Your task to perform on an android device: Add usb-c to usb-b to the cart on target Image 0: 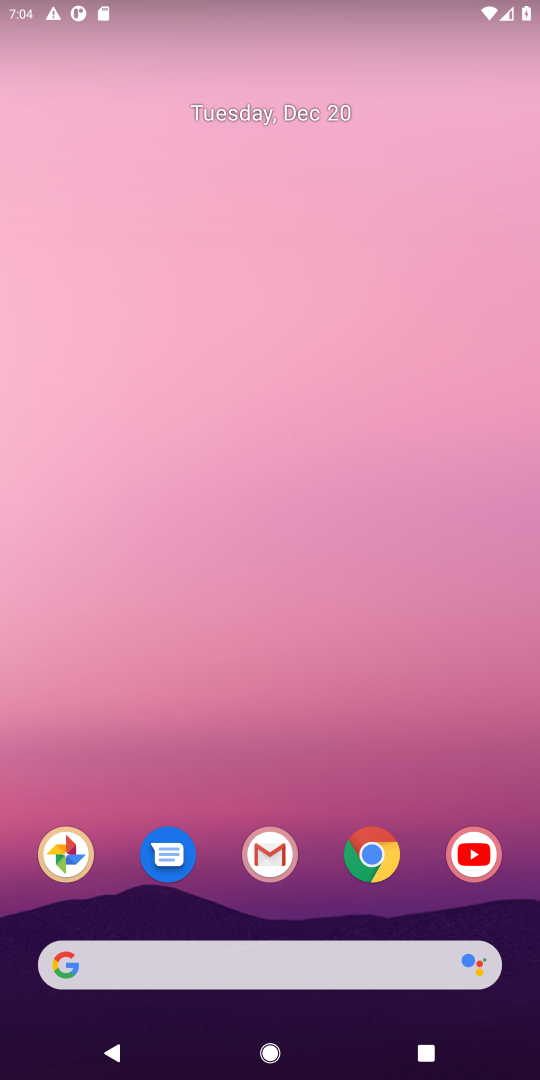
Step 0: click (374, 863)
Your task to perform on an android device: Add usb-c to usb-b to the cart on target Image 1: 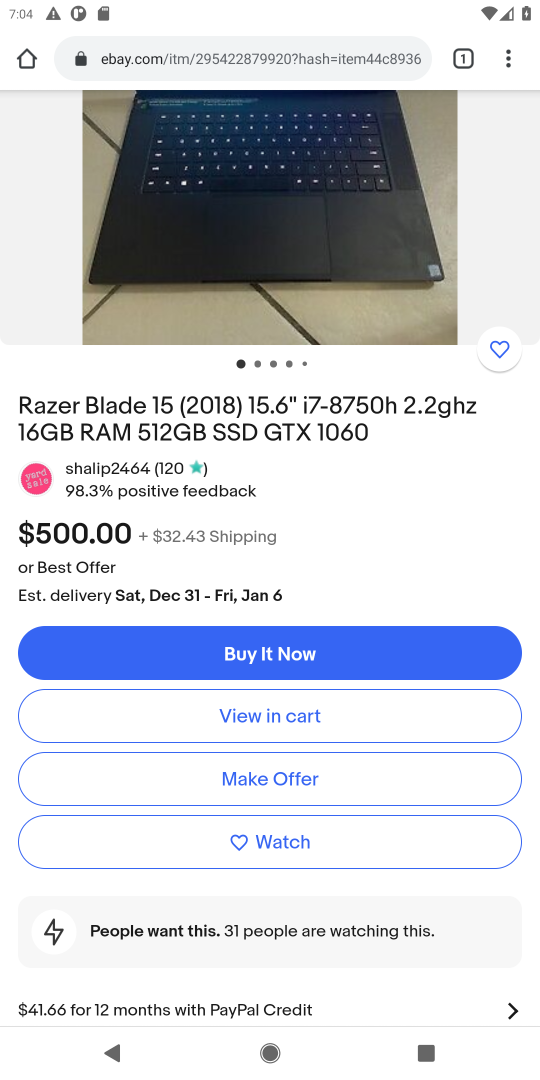
Step 1: click (193, 62)
Your task to perform on an android device: Add usb-c to usb-b to the cart on target Image 2: 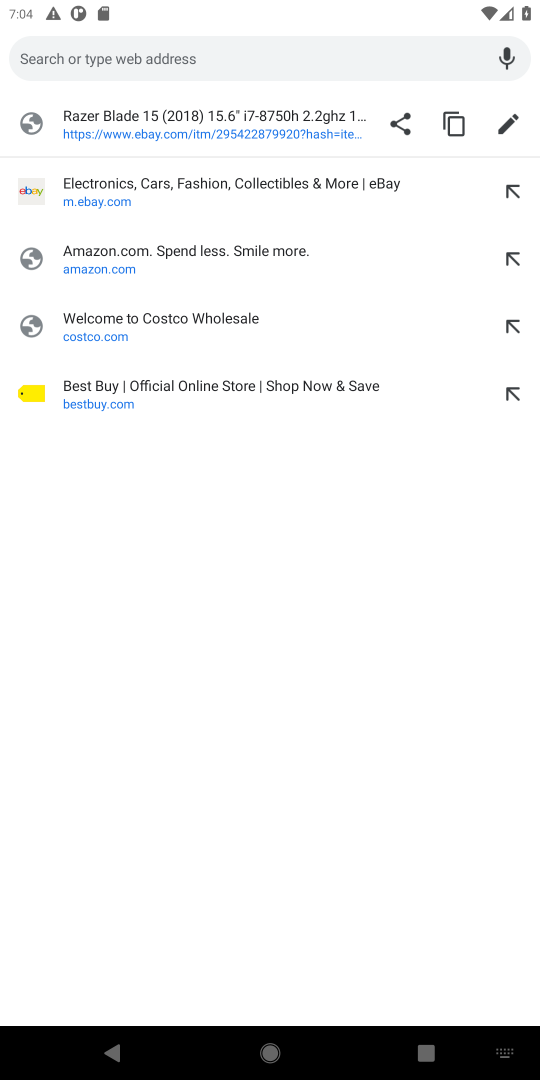
Step 2: type "target.com"
Your task to perform on an android device: Add usb-c to usb-b to the cart on target Image 3: 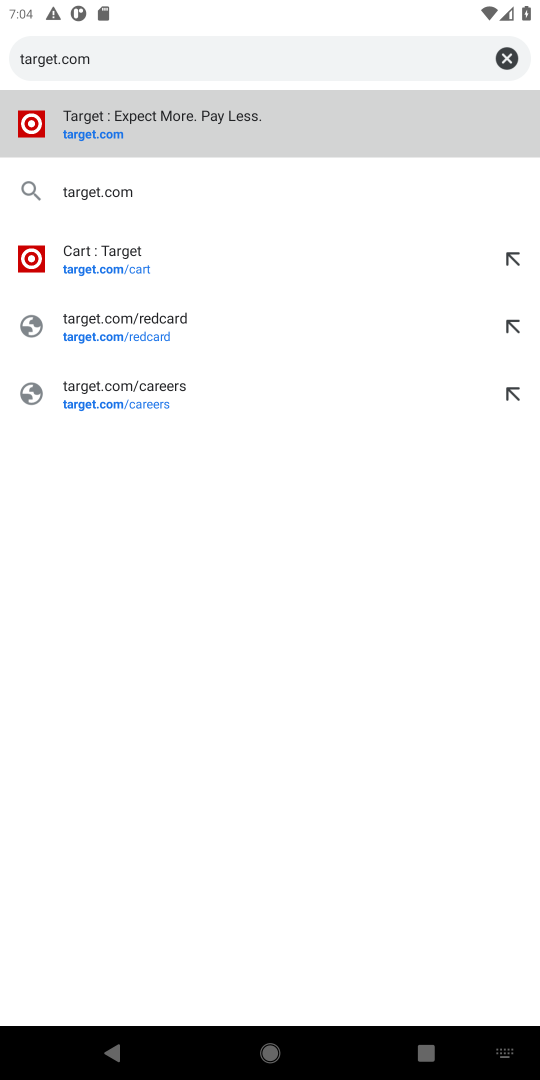
Step 3: click (100, 136)
Your task to perform on an android device: Add usb-c to usb-b to the cart on target Image 4: 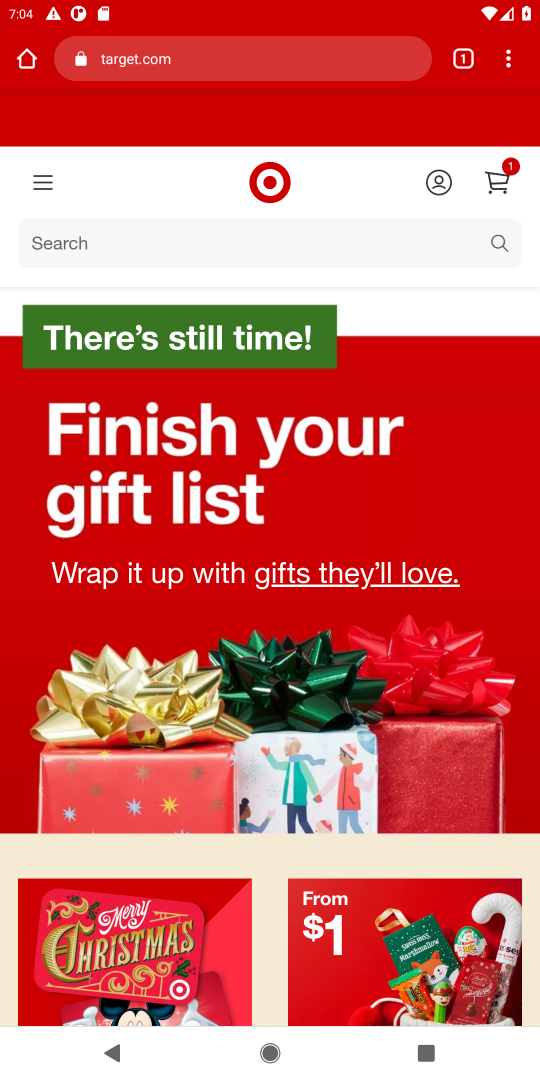
Step 4: click (54, 238)
Your task to perform on an android device: Add usb-c to usb-b to the cart on target Image 5: 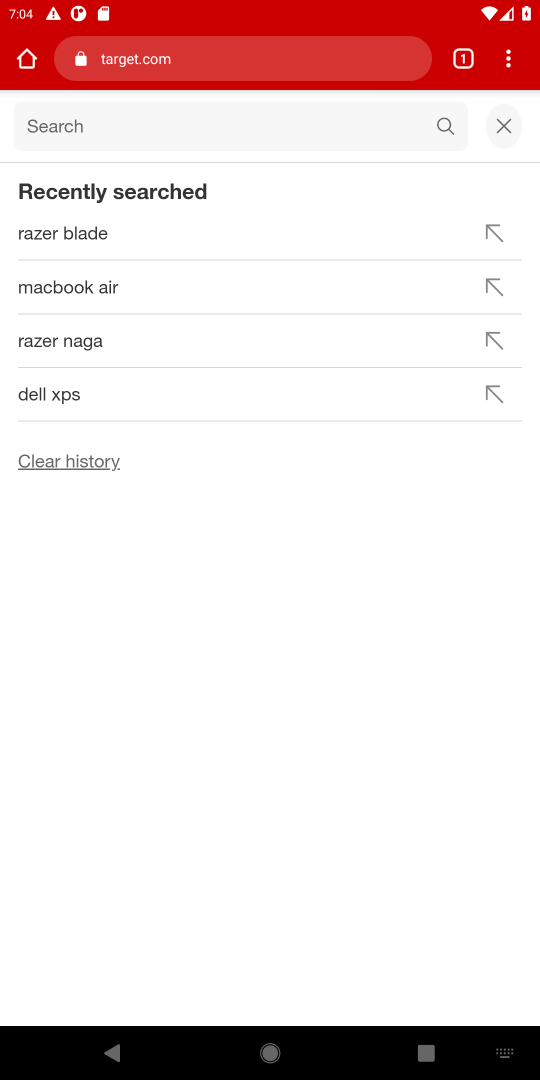
Step 5: type "usb-c to usb-b"
Your task to perform on an android device: Add usb-c to usb-b to the cart on target Image 6: 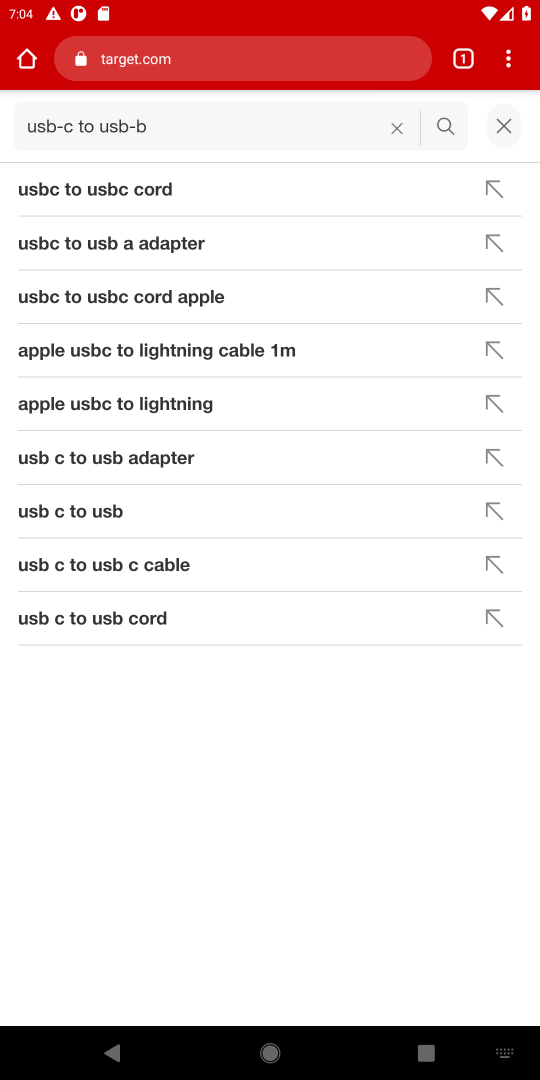
Step 6: click (443, 129)
Your task to perform on an android device: Add usb-c to usb-b to the cart on target Image 7: 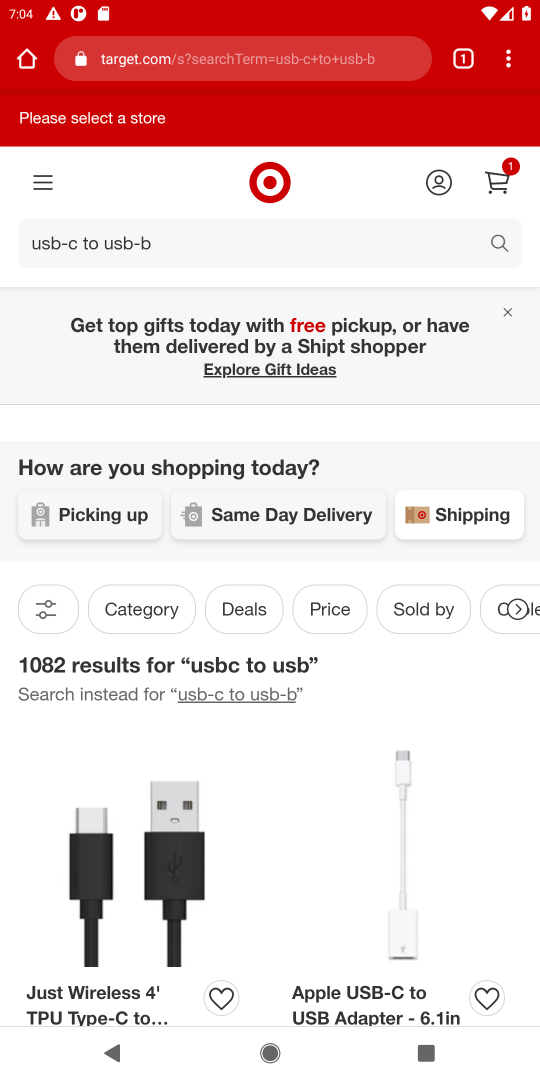
Step 7: drag from (236, 867) to (208, 396)
Your task to perform on an android device: Add usb-c to usb-b to the cart on target Image 8: 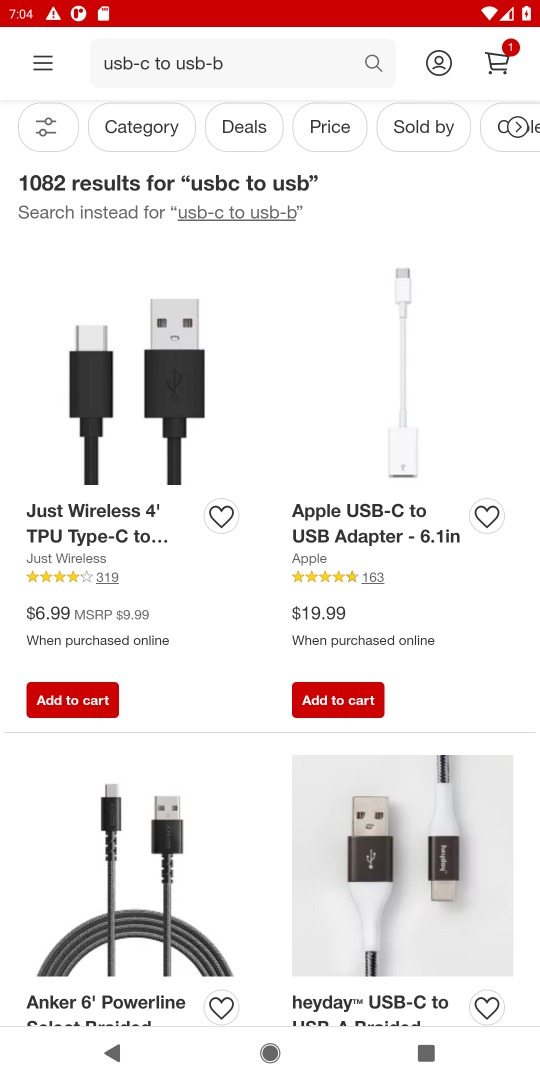
Step 8: click (95, 526)
Your task to perform on an android device: Add usb-c to usb-b to the cart on target Image 9: 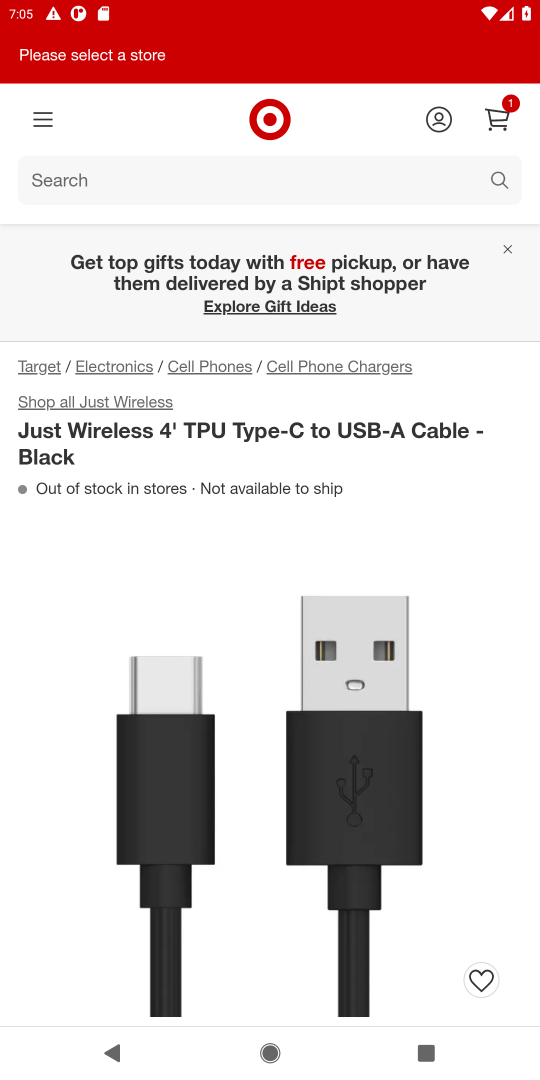
Step 9: press back button
Your task to perform on an android device: Add usb-c to usb-b to the cart on target Image 10: 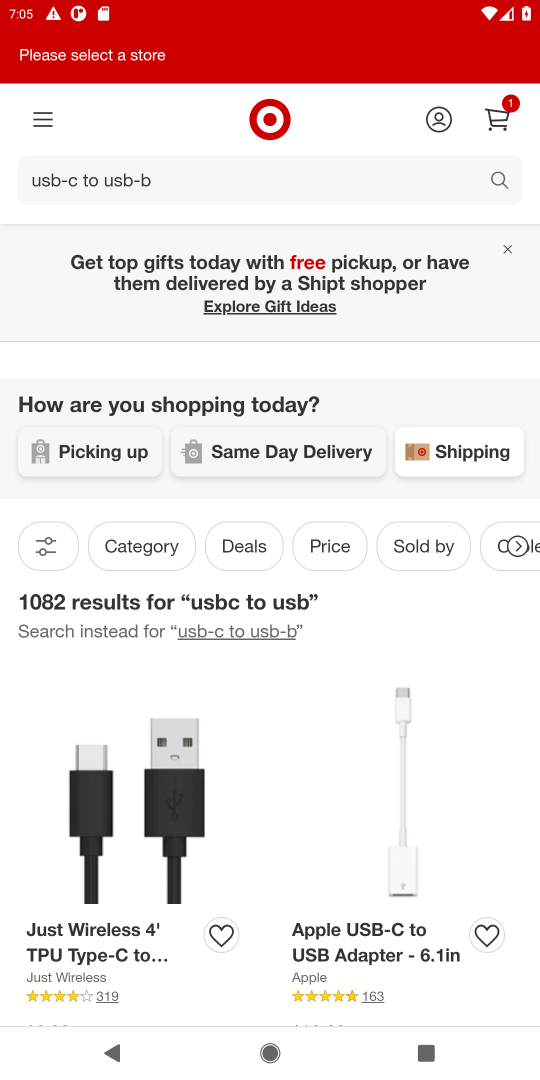
Step 10: drag from (266, 693) to (280, 390)
Your task to perform on an android device: Add usb-c to usb-b to the cart on target Image 11: 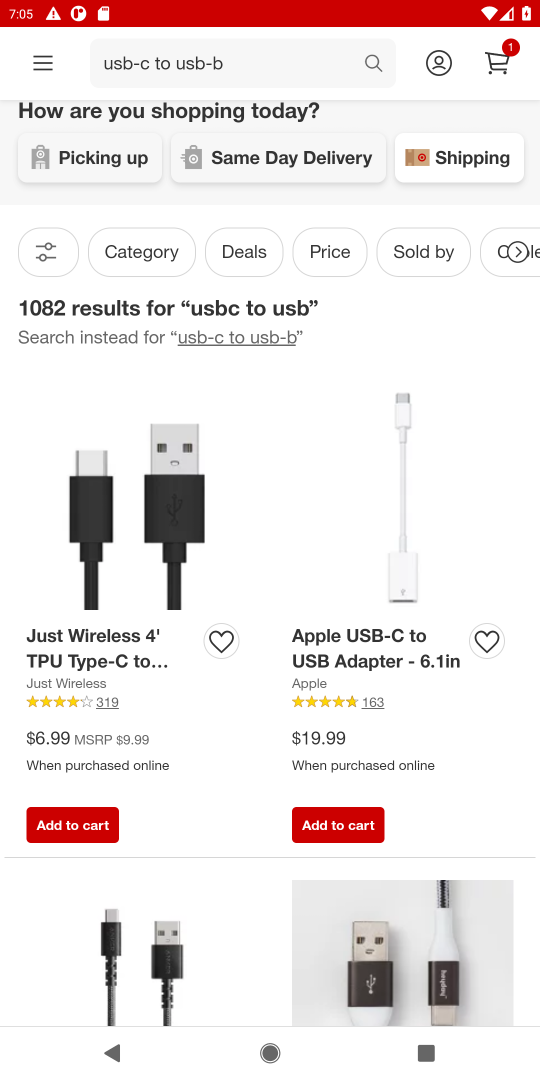
Step 11: drag from (121, 779) to (112, 386)
Your task to perform on an android device: Add usb-c to usb-b to the cart on target Image 12: 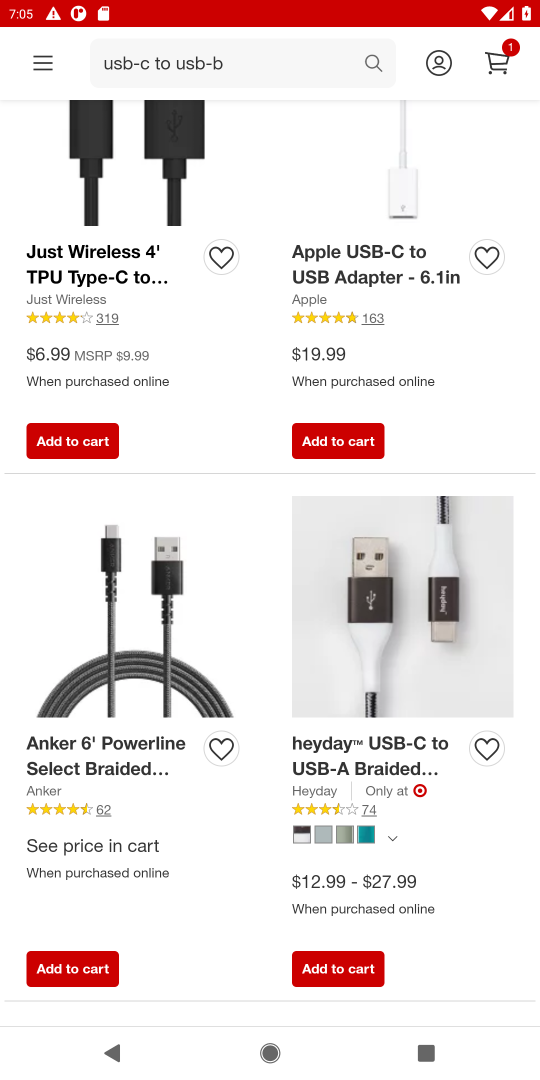
Step 12: drag from (102, 836) to (101, 317)
Your task to perform on an android device: Add usb-c to usb-b to the cart on target Image 13: 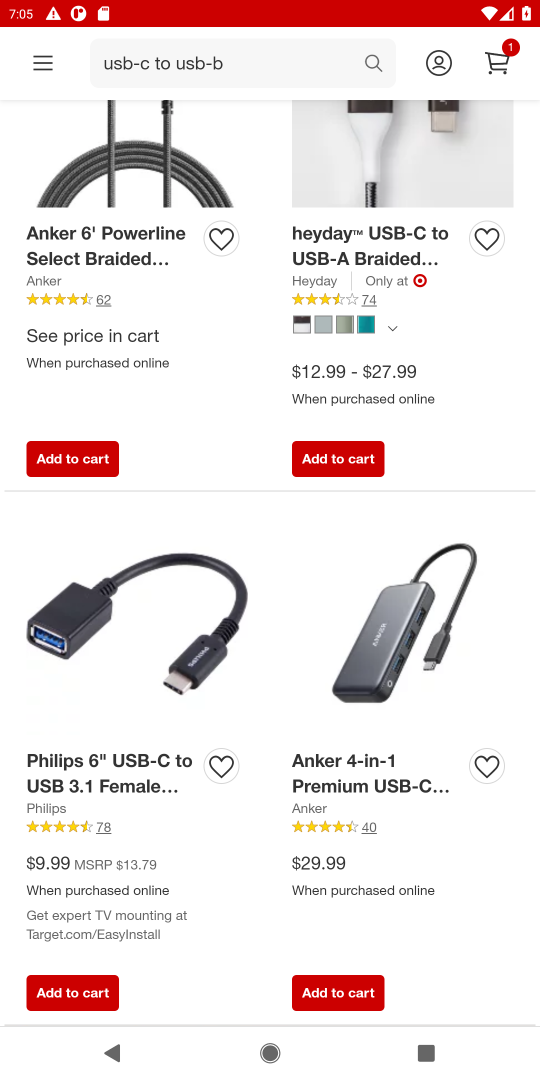
Step 13: click (369, 793)
Your task to perform on an android device: Add usb-c to usb-b to the cart on target Image 14: 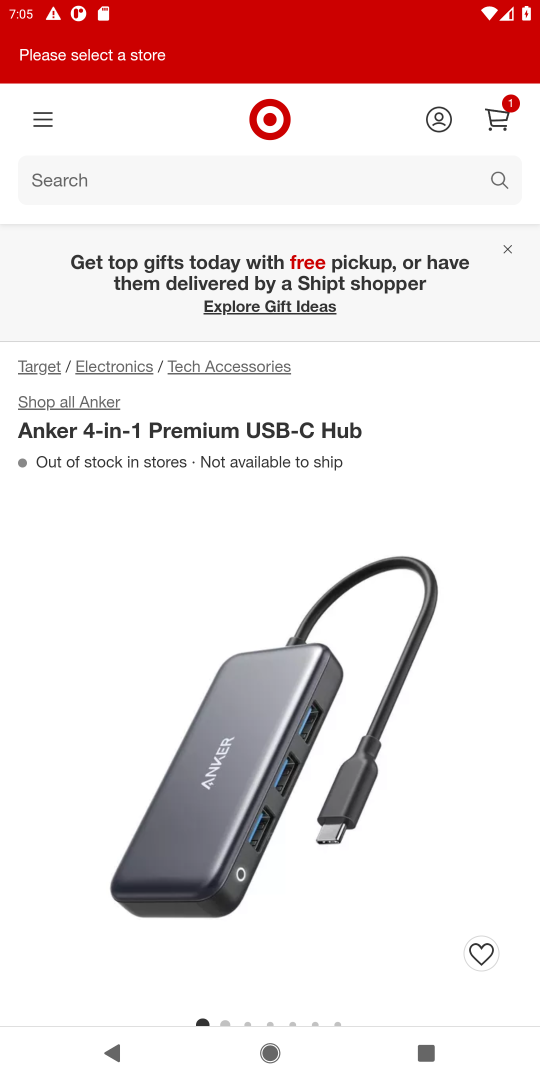
Step 14: press back button
Your task to perform on an android device: Add usb-c to usb-b to the cart on target Image 15: 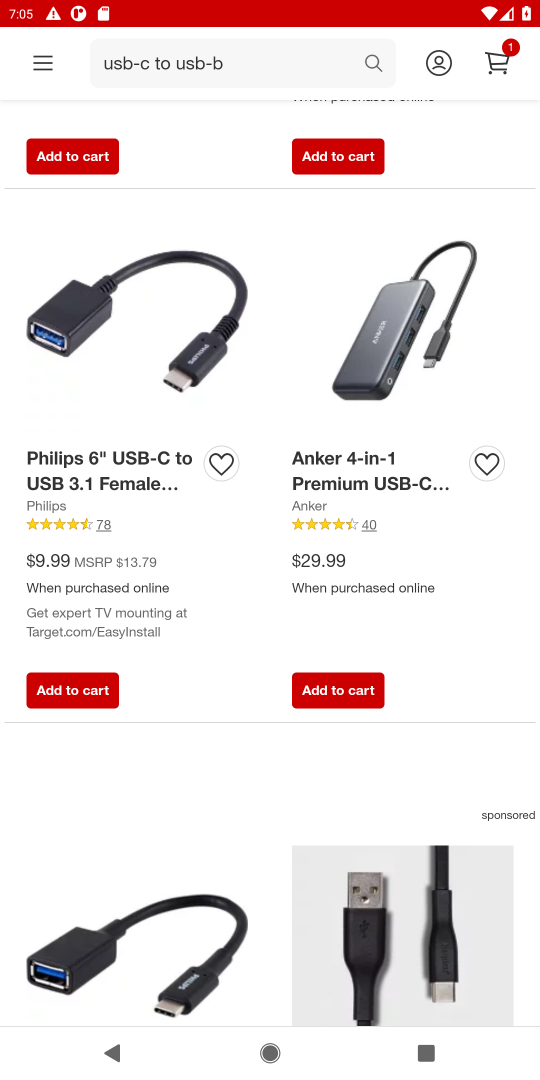
Step 15: drag from (221, 833) to (199, 481)
Your task to perform on an android device: Add usb-c to usb-b to the cart on target Image 16: 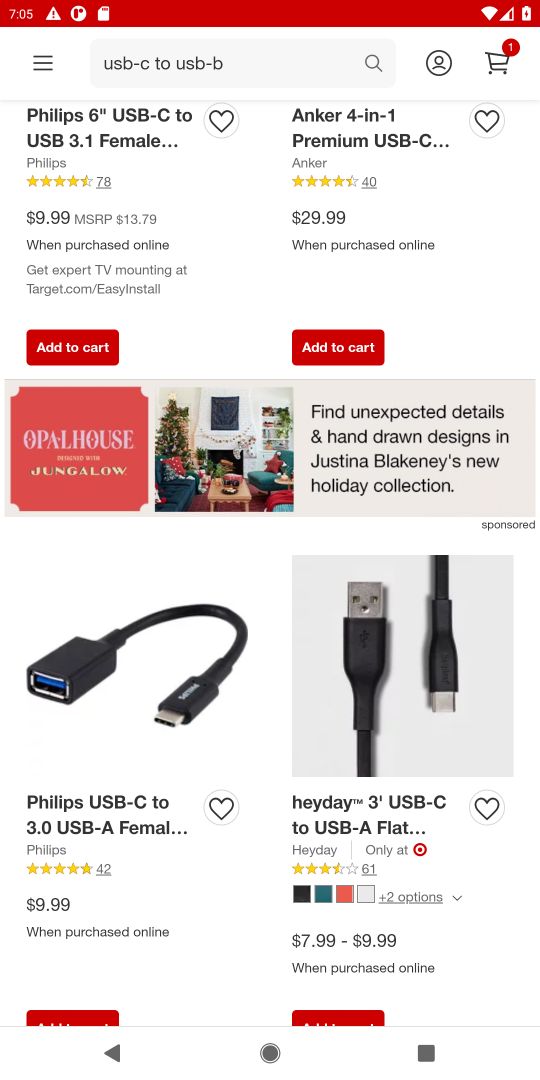
Step 16: drag from (116, 849) to (94, 519)
Your task to perform on an android device: Add usb-c to usb-b to the cart on target Image 17: 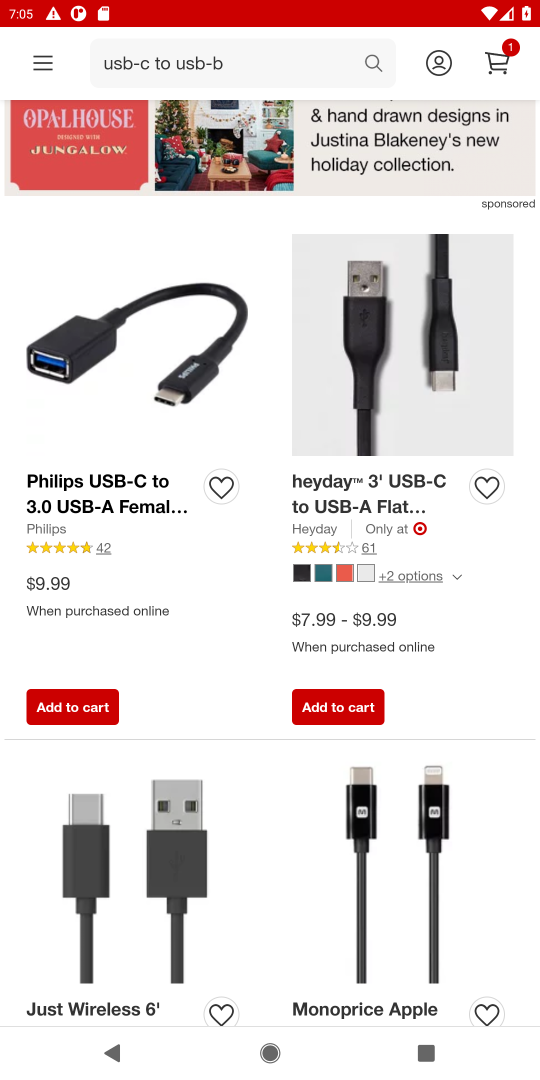
Step 17: drag from (109, 891) to (108, 410)
Your task to perform on an android device: Add usb-c to usb-b to the cart on target Image 18: 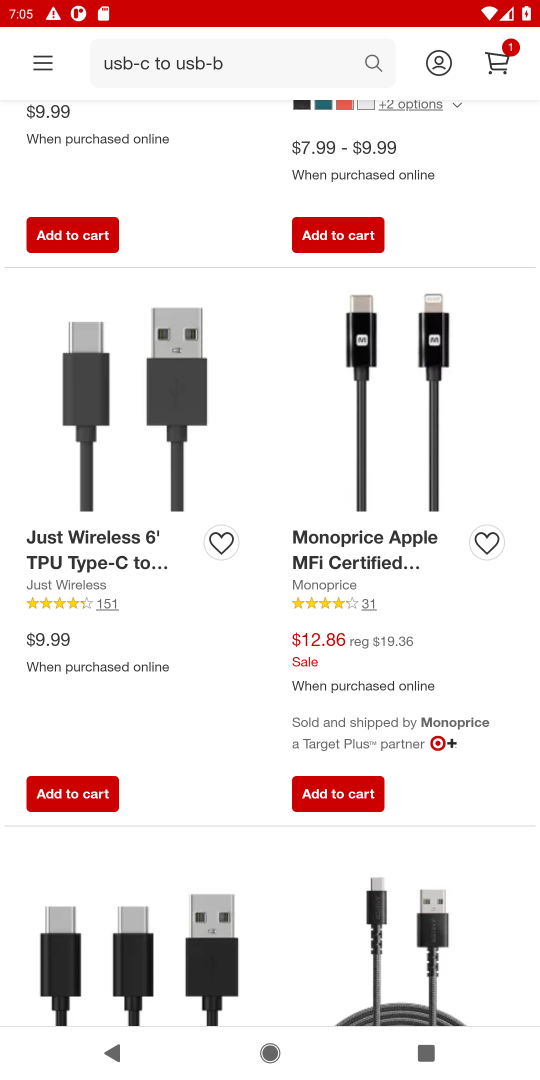
Step 18: click (73, 569)
Your task to perform on an android device: Add usb-c to usb-b to the cart on target Image 19: 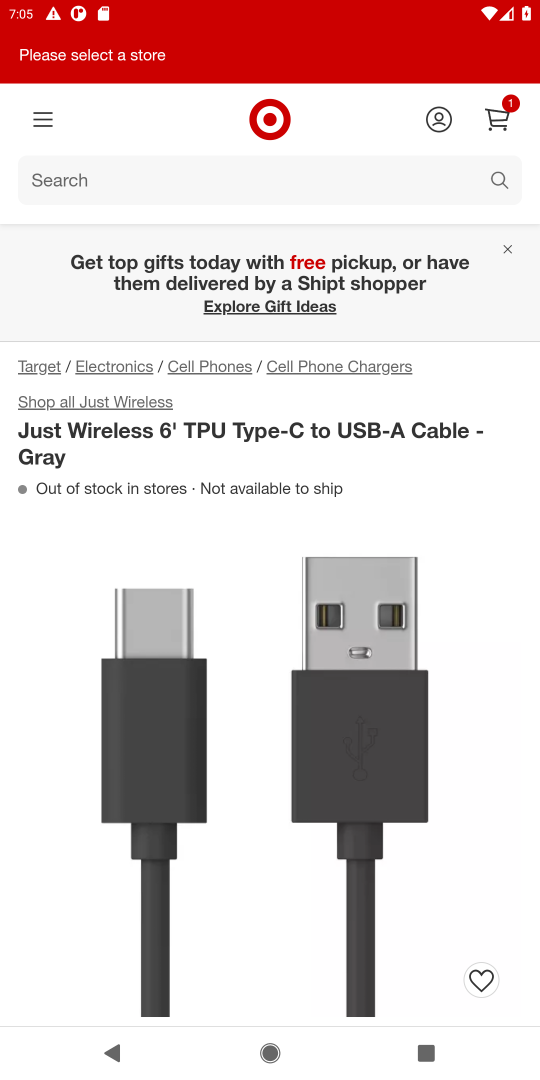
Step 19: press back button
Your task to perform on an android device: Add usb-c to usb-b to the cart on target Image 20: 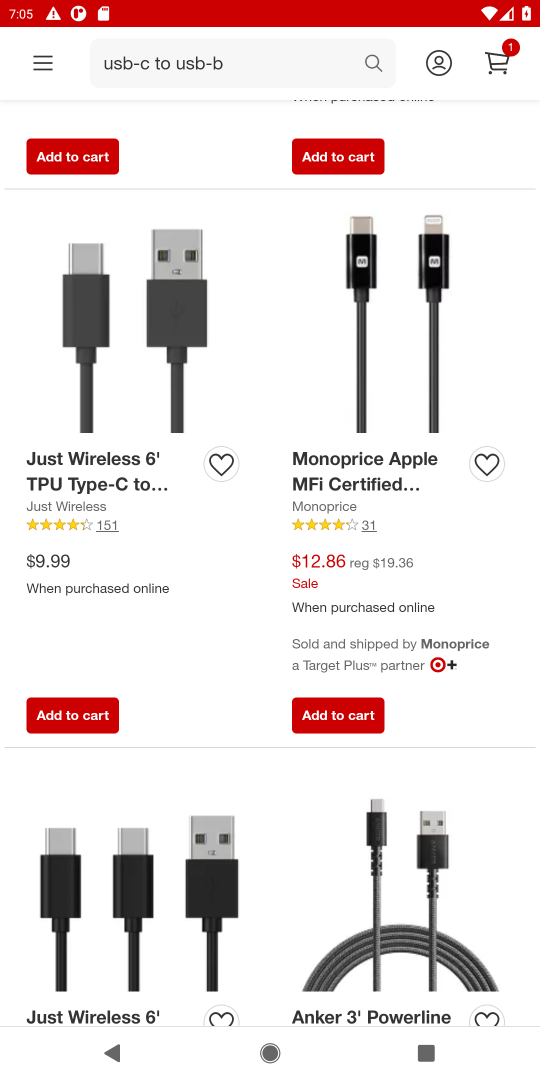
Step 20: drag from (209, 764) to (190, 431)
Your task to perform on an android device: Add usb-c to usb-b to the cart on target Image 21: 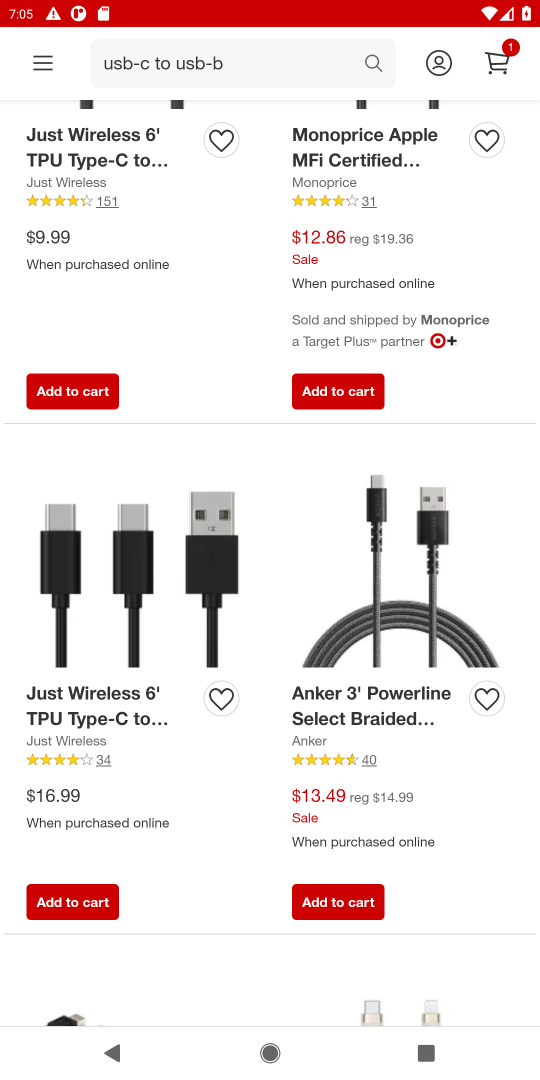
Step 21: click (69, 726)
Your task to perform on an android device: Add usb-c to usb-b to the cart on target Image 22: 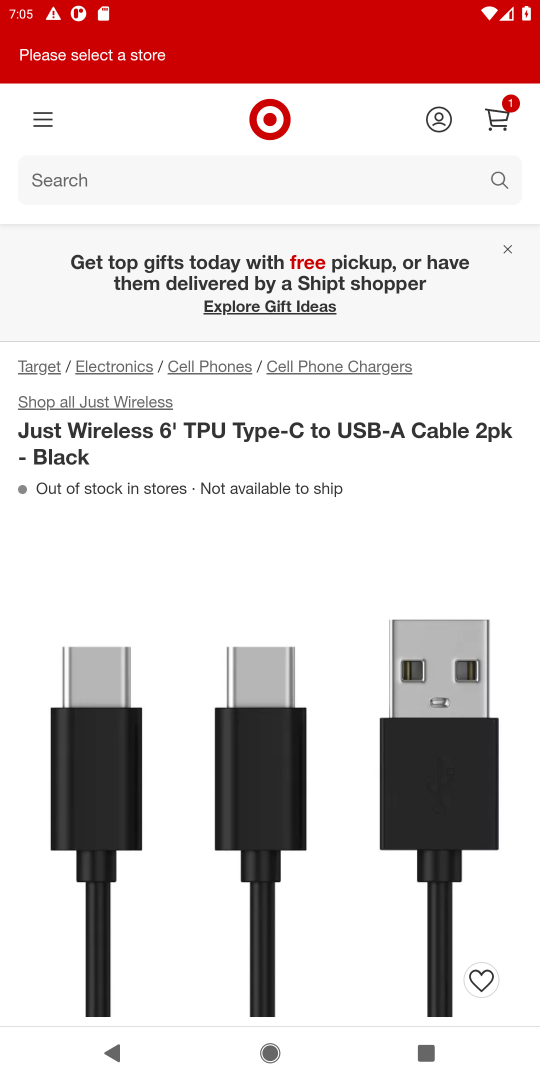
Step 22: task complete